Your task to perform on an android device: Open Youtube and go to the subscriptions tab Image 0: 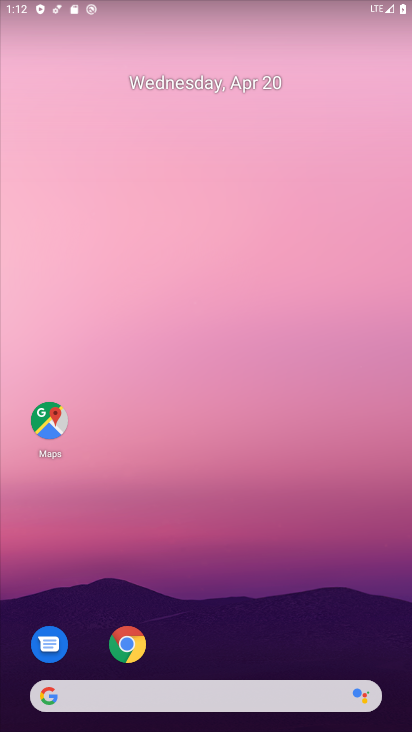
Step 0: drag from (268, 659) to (327, 124)
Your task to perform on an android device: Open Youtube and go to the subscriptions tab Image 1: 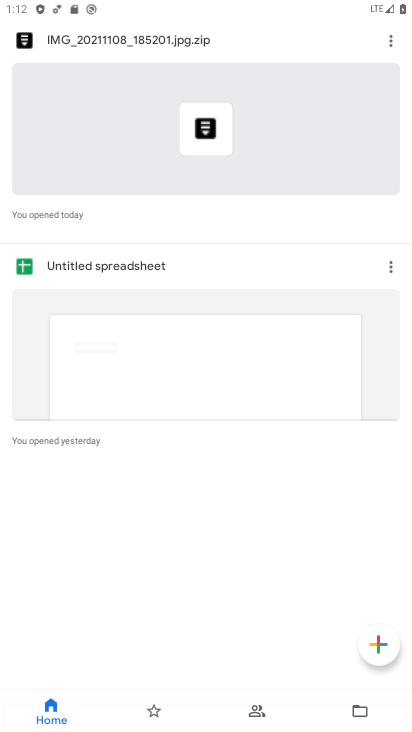
Step 1: drag from (258, 670) to (310, 199)
Your task to perform on an android device: Open Youtube and go to the subscriptions tab Image 2: 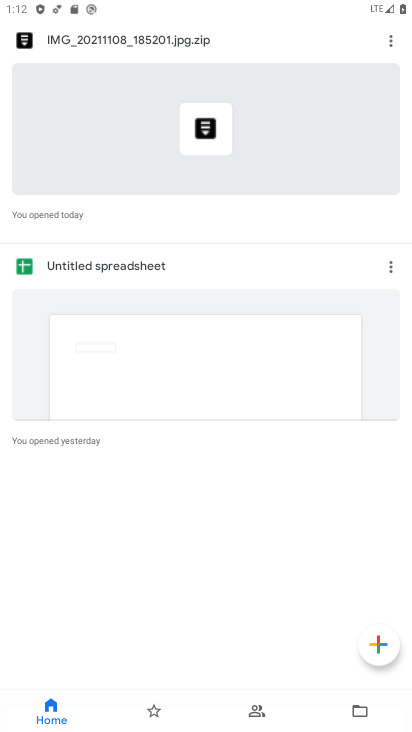
Step 2: press home button
Your task to perform on an android device: Open Youtube and go to the subscriptions tab Image 3: 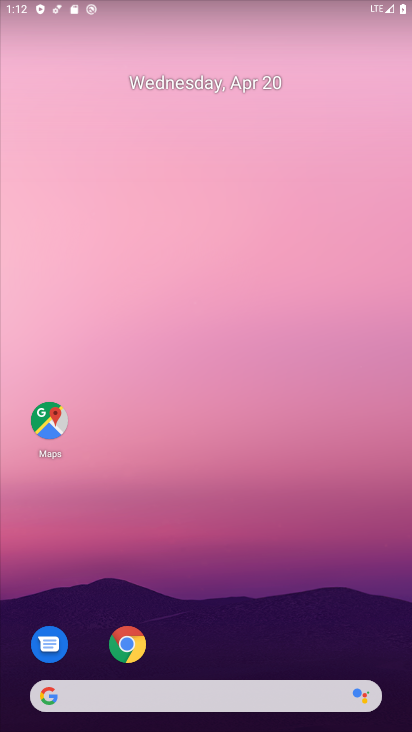
Step 3: drag from (251, 665) to (293, 15)
Your task to perform on an android device: Open Youtube and go to the subscriptions tab Image 4: 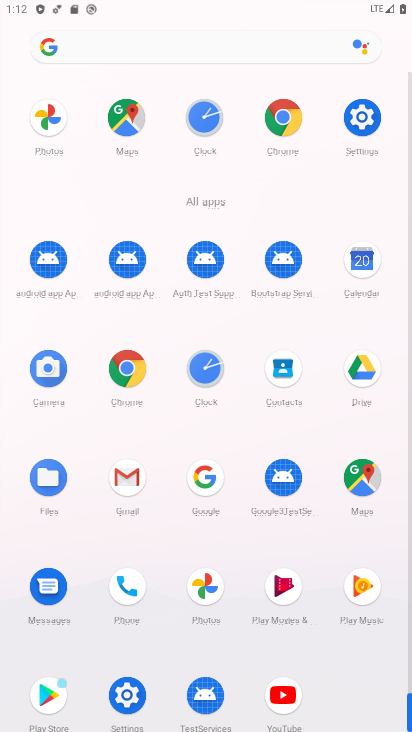
Step 4: click (283, 692)
Your task to perform on an android device: Open Youtube and go to the subscriptions tab Image 5: 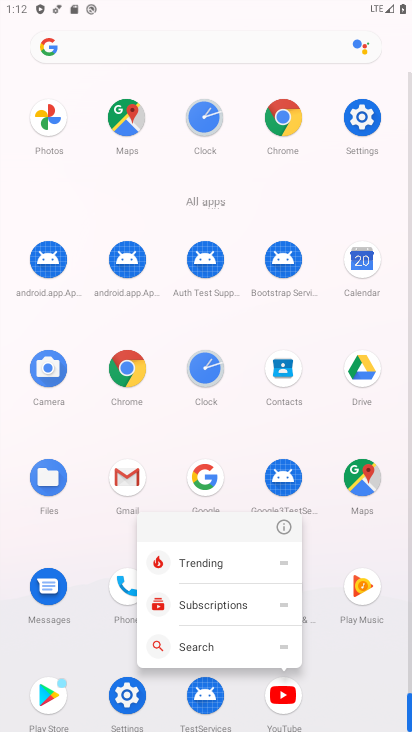
Step 5: click (283, 692)
Your task to perform on an android device: Open Youtube and go to the subscriptions tab Image 6: 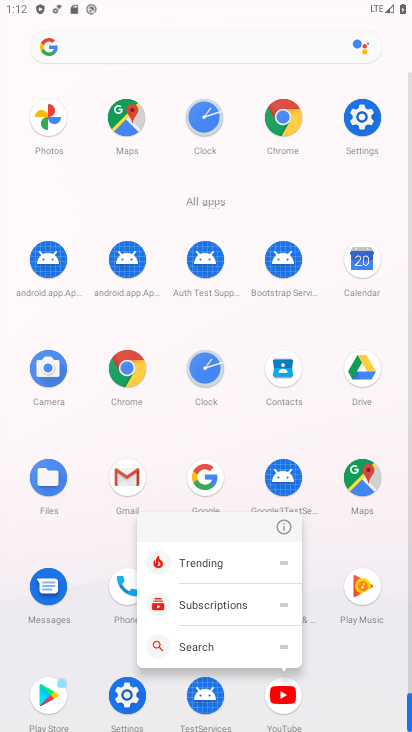
Step 6: click (283, 692)
Your task to perform on an android device: Open Youtube and go to the subscriptions tab Image 7: 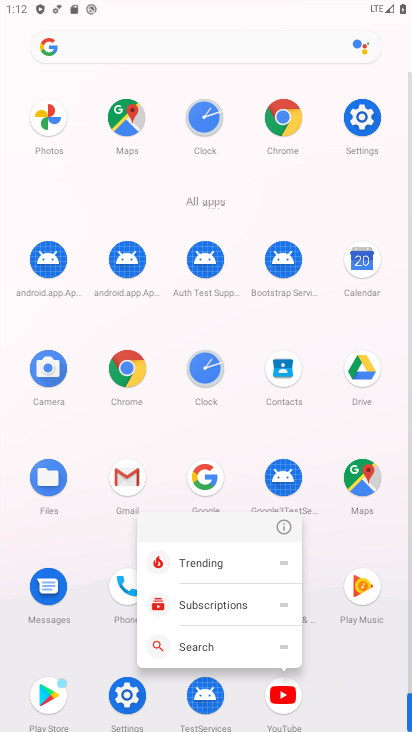
Step 7: click (283, 692)
Your task to perform on an android device: Open Youtube and go to the subscriptions tab Image 8: 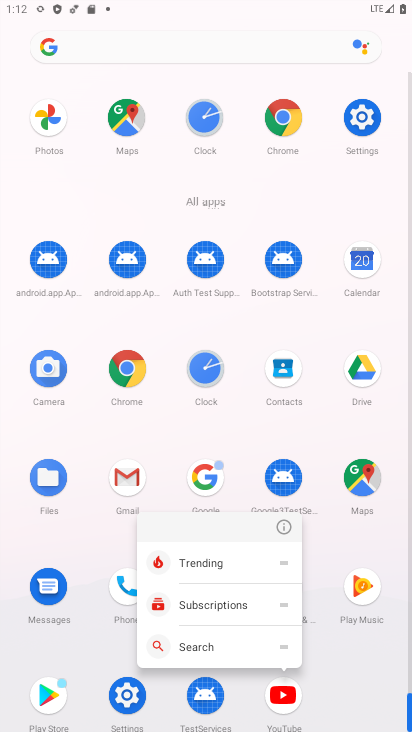
Step 8: click (290, 688)
Your task to perform on an android device: Open Youtube and go to the subscriptions tab Image 9: 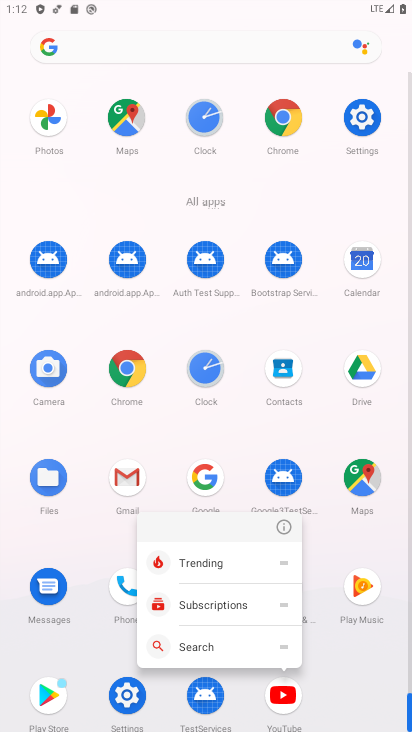
Step 9: click (290, 688)
Your task to perform on an android device: Open Youtube and go to the subscriptions tab Image 10: 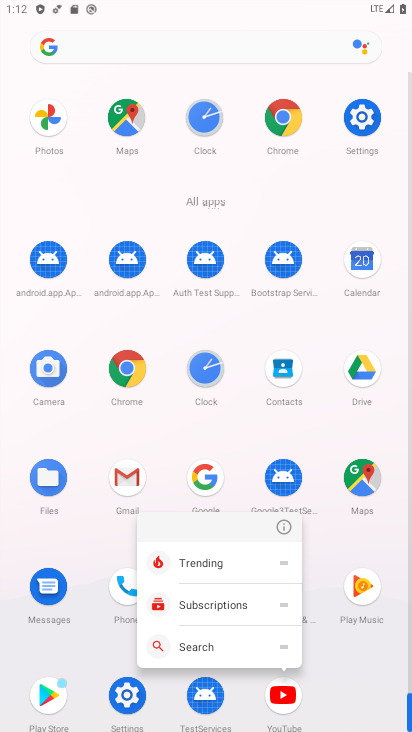
Step 10: click (291, 692)
Your task to perform on an android device: Open Youtube and go to the subscriptions tab Image 11: 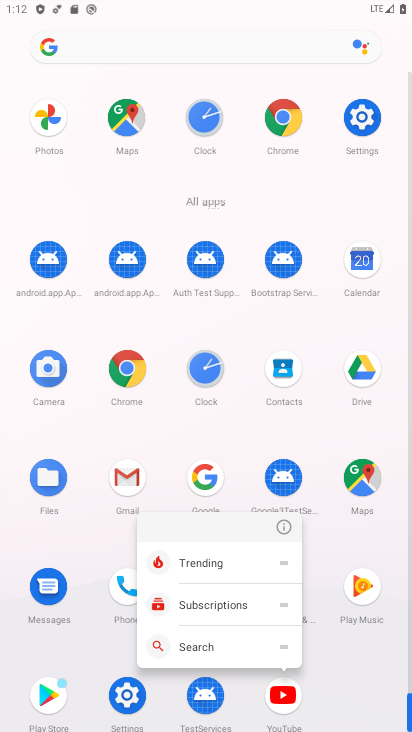
Step 11: click (288, 684)
Your task to perform on an android device: Open Youtube and go to the subscriptions tab Image 12: 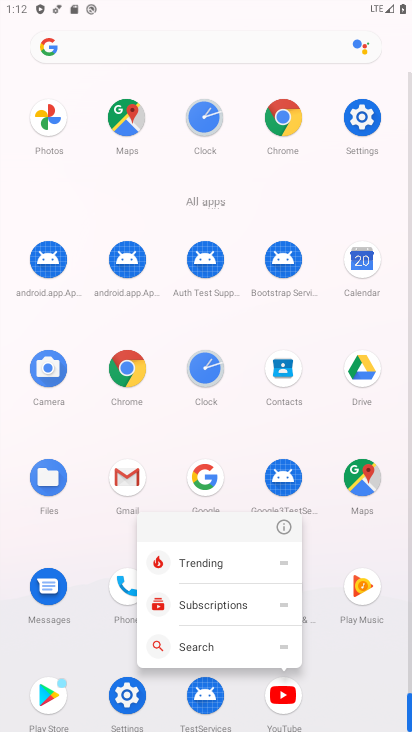
Step 12: click (287, 699)
Your task to perform on an android device: Open Youtube and go to the subscriptions tab Image 13: 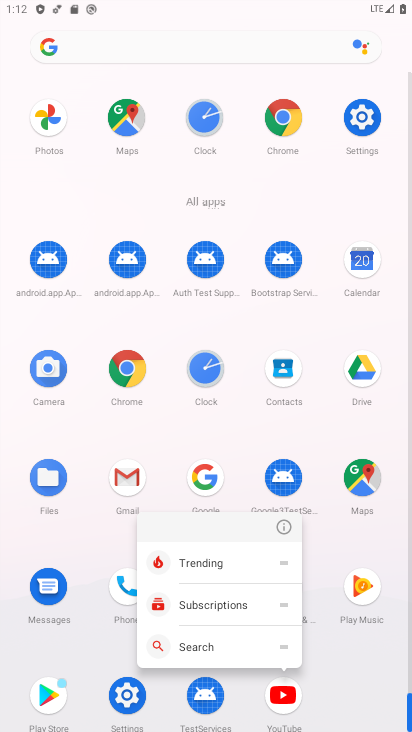
Step 13: click (287, 699)
Your task to perform on an android device: Open Youtube and go to the subscriptions tab Image 14: 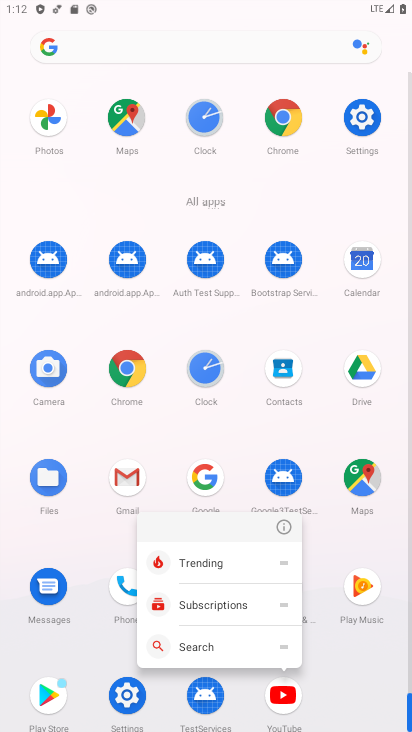
Step 14: click (287, 699)
Your task to perform on an android device: Open Youtube and go to the subscriptions tab Image 15: 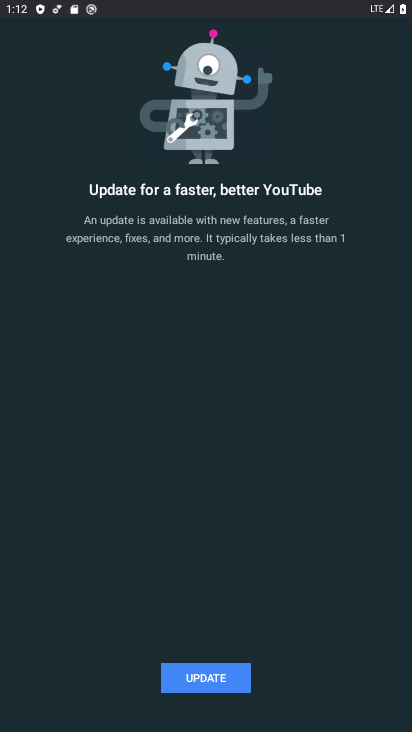
Step 15: click (231, 678)
Your task to perform on an android device: Open Youtube and go to the subscriptions tab Image 16: 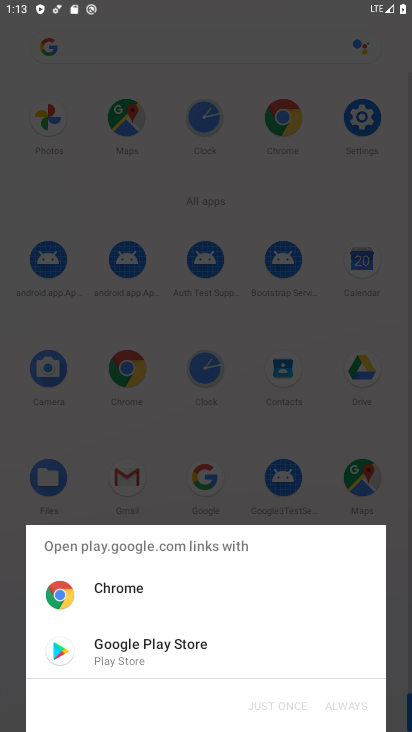
Step 16: click (138, 656)
Your task to perform on an android device: Open Youtube and go to the subscriptions tab Image 17: 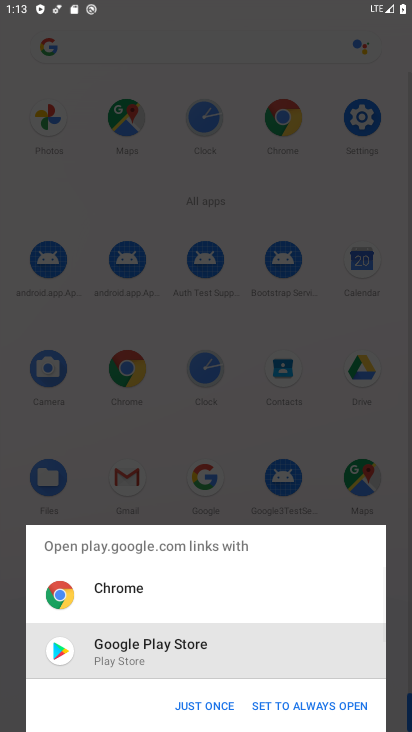
Step 17: click (204, 701)
Your task to perform on an android device: Open Youtube and go to the subscriptions tab Image 18: 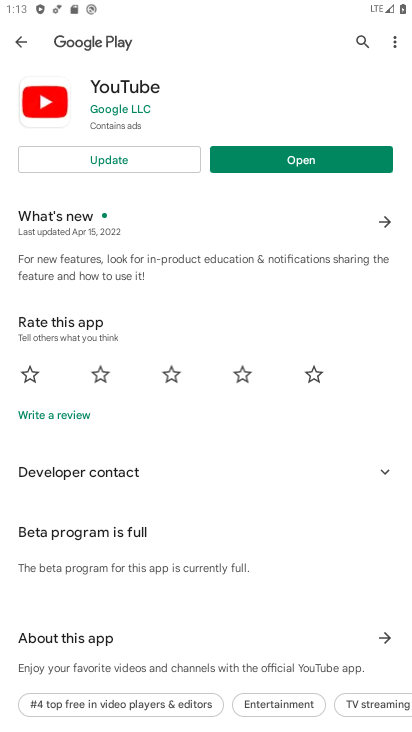
Step 18: click (135, 165)
Your task to perform on an android device: Open Youtube and go to the subscriptions tab Image 19: 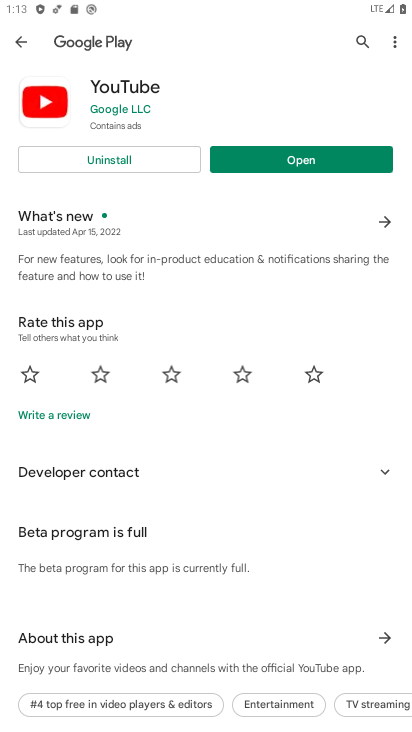
Step 19: click (274, 160)
Your task to perform on an android device: Open Youtube and go to the subscriptions tab Image 20: 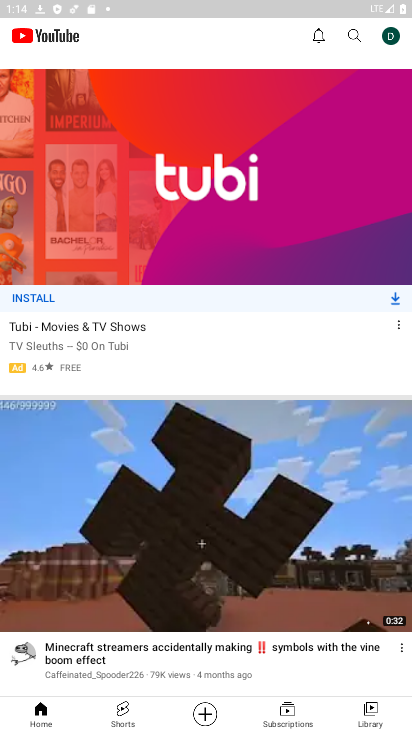
Step 20: click (296, 718)
Your task to perform on an android device: Open Youtube and go to the subscriptions tab Image 21: 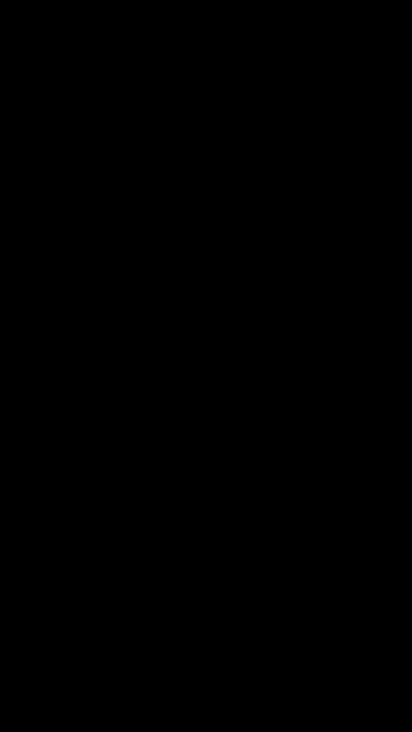
Step 21: task complete